Your task to perform on an android device: toggle priority inbox in the gmail app Image 0: 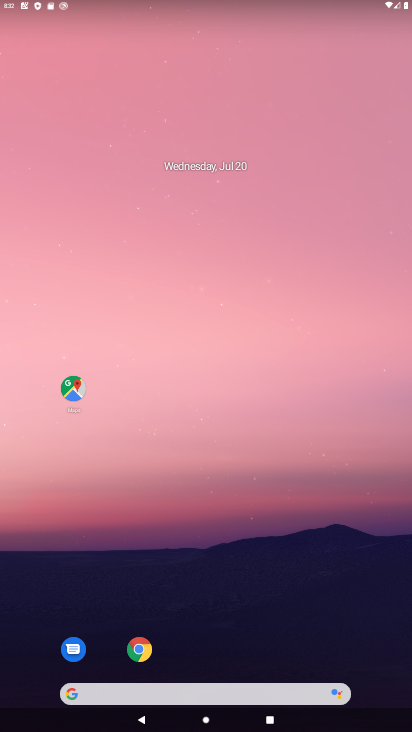
Step 0: drag from (274, 674) to (279, 192)
Your task to perform on an android device: toggle priority inbox in the gmail app Image 1: 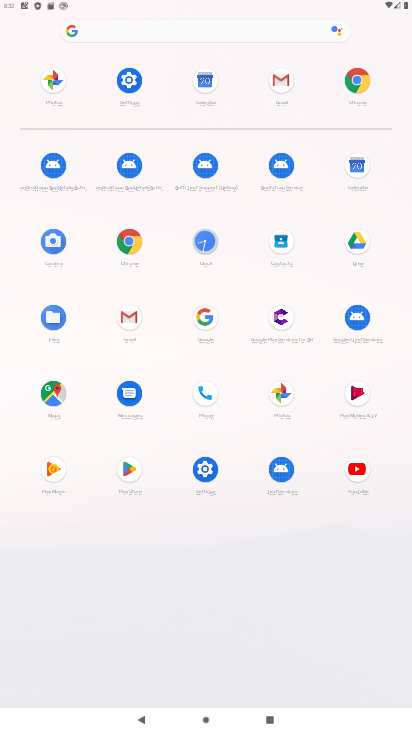
Step 1: click (267, 91)
Your task to perform on an android device: toggle priority inbox in the gmail app Image 2: 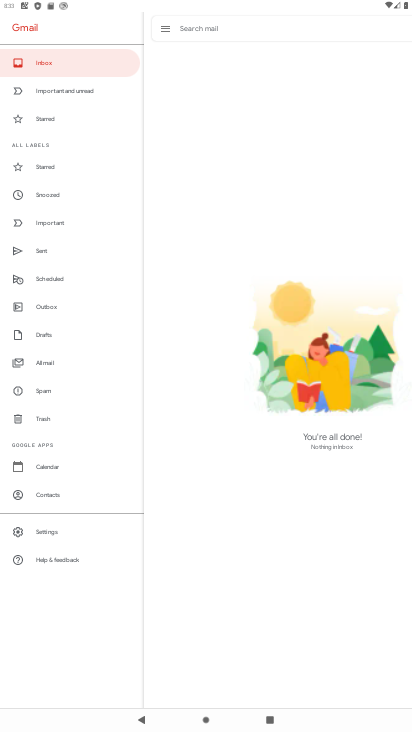
Step 2: task complete